Your task to perform on an android device: Do I have any events tomorrow? Image 0: 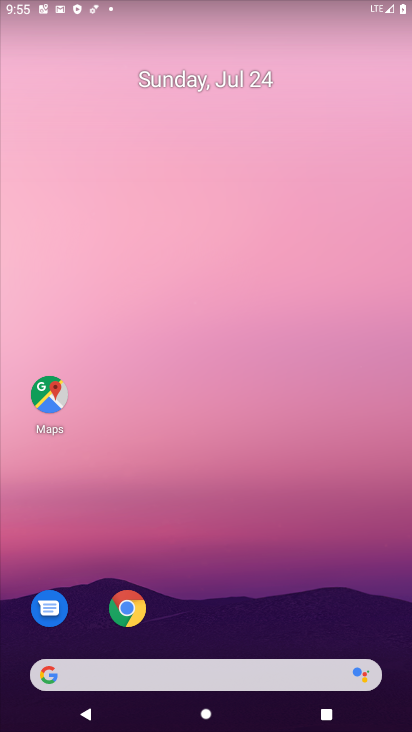
Step 0: drag from (218, 637) to (241, 37)
Your task to perform on an android device: Do I have any events tomorrow? Image 1: 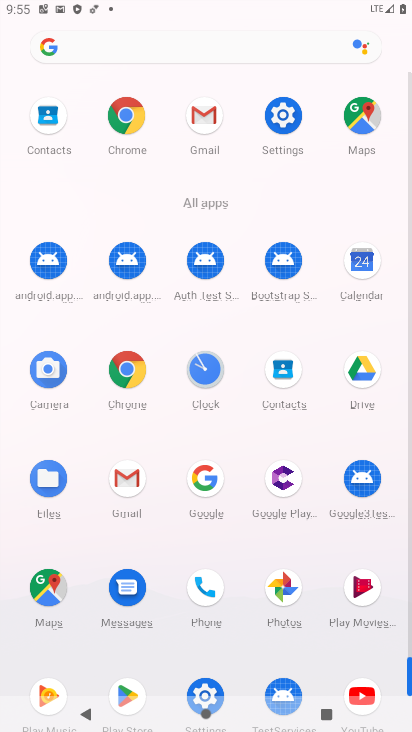
Step 1: click (358, 256)
Your task to perform on an android device: Do I have any events tomorrow? Image 2: 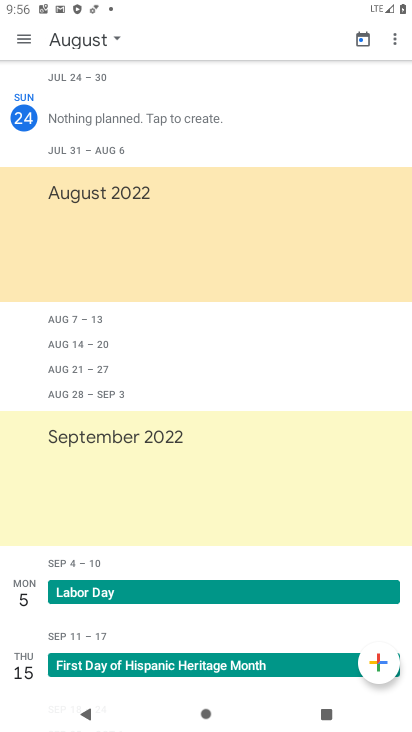
Step 2: click (22, 36)
Your task to perform on an android device: Do I have any events tomorrow? Image 3: 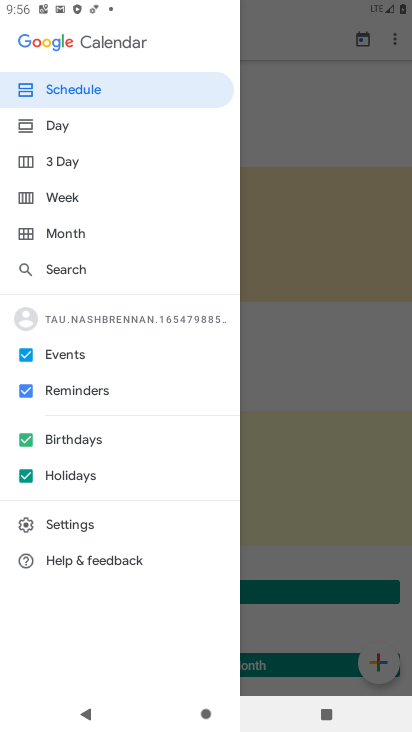
Step 3: click (25, 474)
Your task to perform on an android device: Do I have any events tomorrow? Image 4: 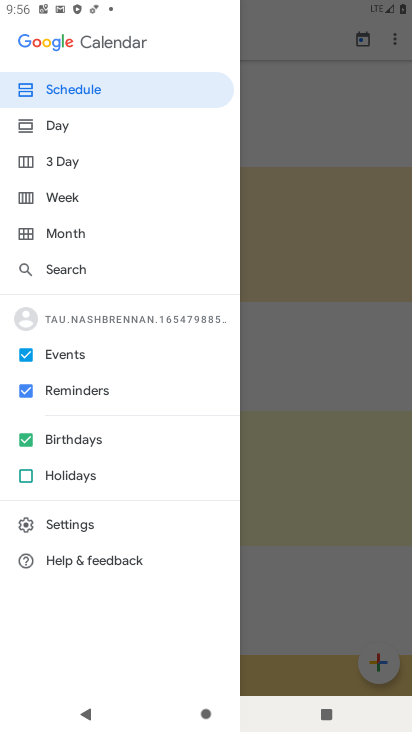
Step 4: click (27, 441)
Your task to perform on an android device: Do I have any events tomorrow? Image 5: 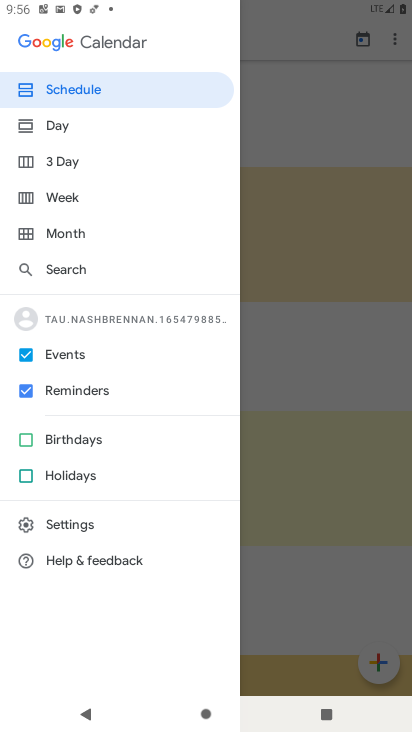
Step 5: click (19, 389)
Your task to perform on an android device: Do I have any events tomorrow? Image 6: 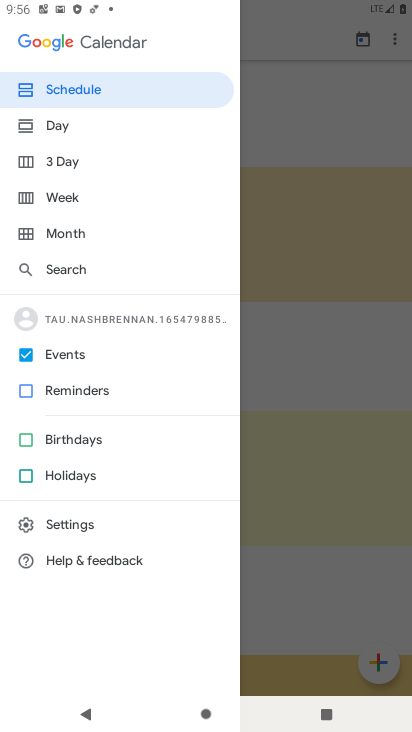
Step 6: click (55, 120)
Your task to perform on an android device: Do I have any events tomorrow? Image 7: 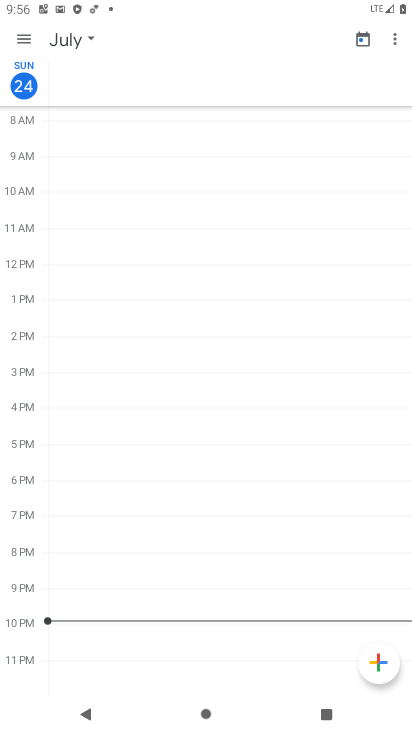
Step 7: click (38, 92)
Your task to perform on an android device: Do I have any events tomorrow? Image 8: 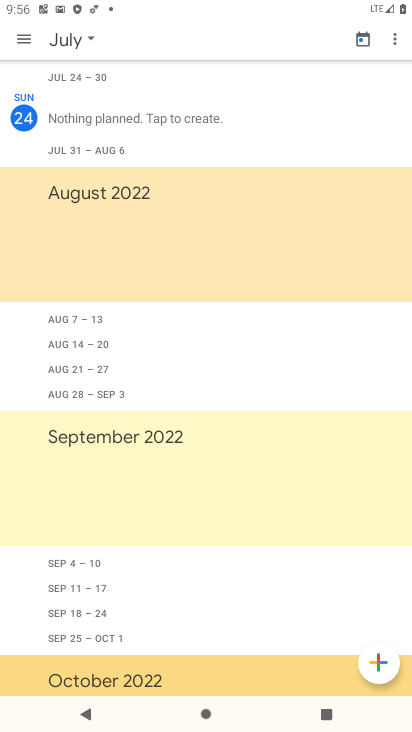
Step 8: task complete